Your task to perform on an android device: see tabs open on other devices in the chrome app Image 0: 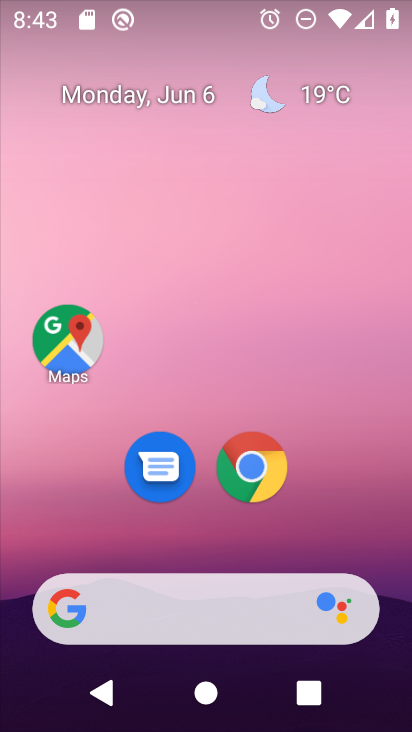
Step 0: drag from (335, 520) to (364, 166)
Your task to perform on an android device: see tabs open on other devices in the chrome app Image 1: 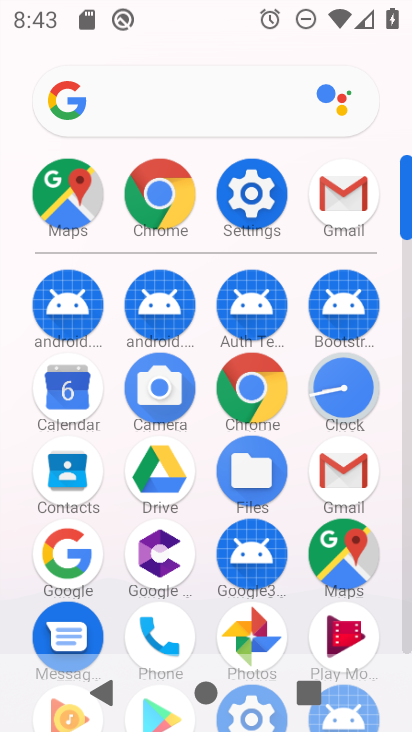
Step 1: click (263, 390)
Your task to perform on an android device: see tabs open on other devices in the chrome app Image 2: 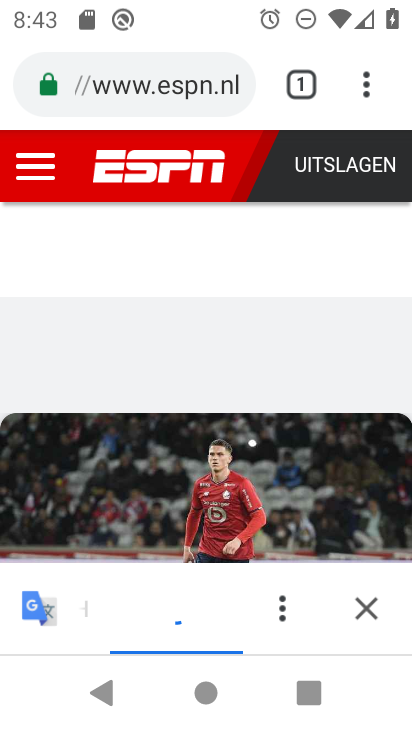
Step 2: click (363, 92)
Your task to perform on an android device: see tabs open on other devices in the chrome app Image 3: 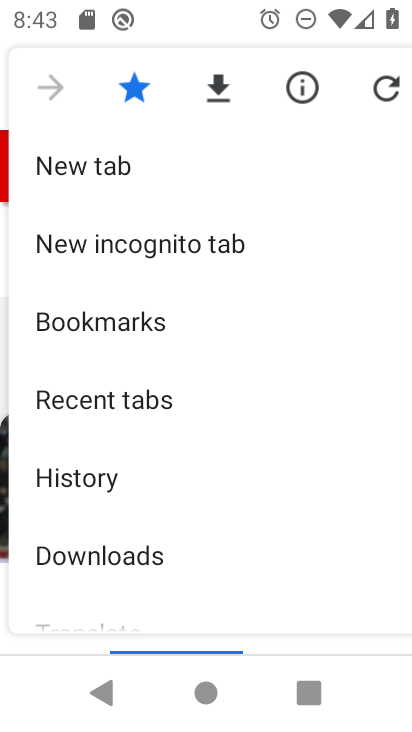
Step 3: click (177, 404)
Your task to perform on an android device: see tabs open on other devices in the chrome app Image 4: 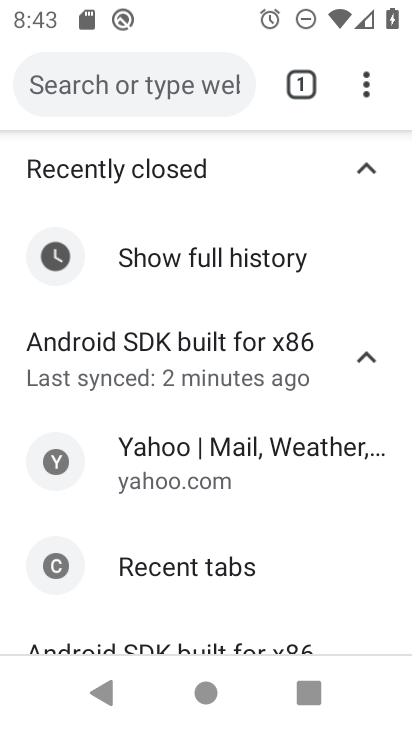
Step 4: click (296, 93)
Your task to perform on an android device: see tabs open on other devices in the chrome app Image 5: 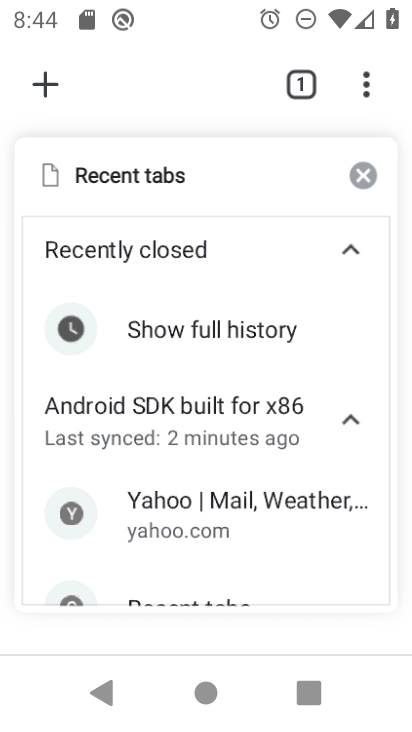
Step 5: task complete